Your task to perform on an android device: Go to accessibility settings Image 0: 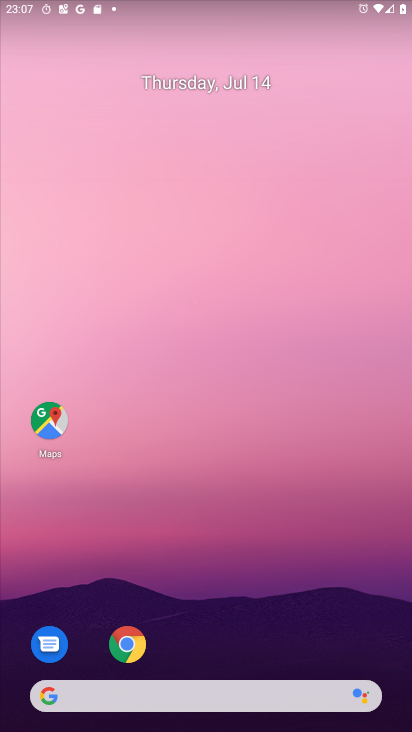
Step 0: drag from (200, 621) to (284, 62)
Your task to perform on an android device: Go to accessibility settings Image 1: 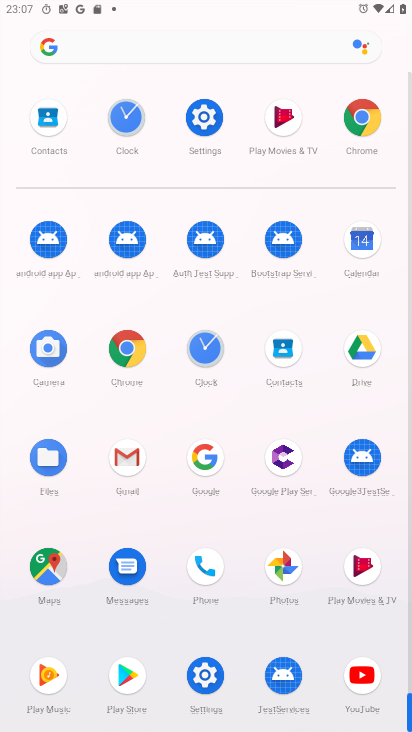
Step 1: click (217, 117)
Your task to perform on an android device: Go to accessibility settings Image 2: 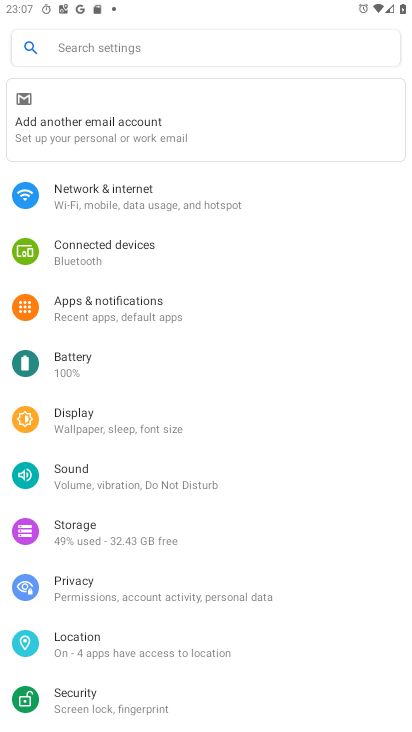
Step 2: drag from (76, 673) to (117, 321)
Your task to perform on an android device: Go to accessibility settings Image 3: 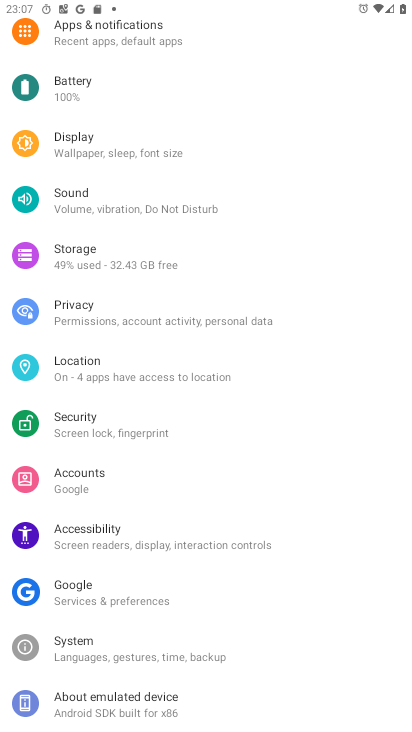
Step 3: click (132, 543)
Your task to perform on an android device: Go to accessibility settings Image 4: 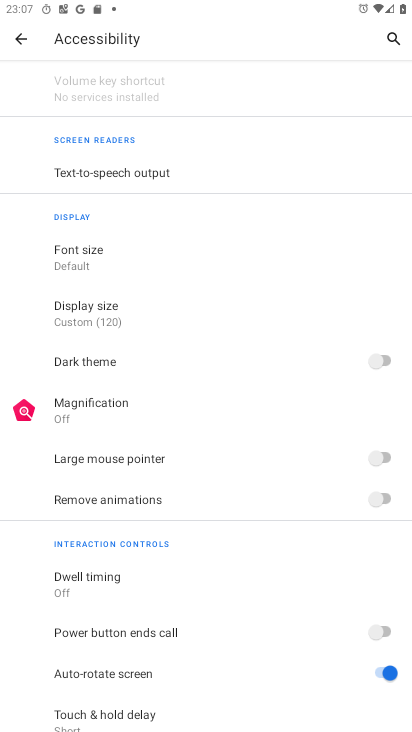
Step 4: task complete